Your task to perform on an android device: clear all cookies in the chrome app Image 0: 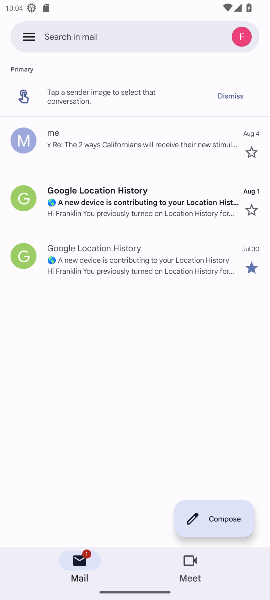
Step 0: press home button
Your task to perform on an android device: clear all cookies in the chrome app Image 1: 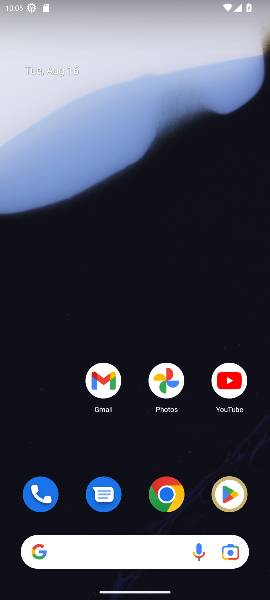
Step 1: click (157, 495)
Your task to perform on an android device: clear all cookies in the chrome app Image 2: 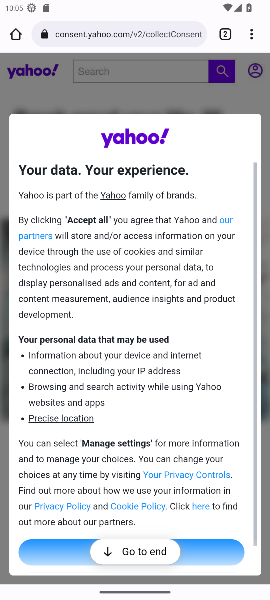
Step 2: click (246, 32)
Your task to perform on an android device: clear all cookies in the chrome app Image 3: 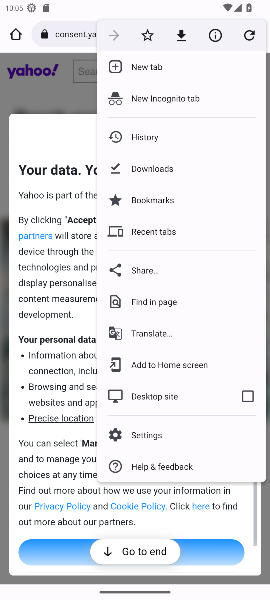
Step 3: click (144, 432)
Your task to perform on an android device: clear all cookies in the chrome app Image 4: 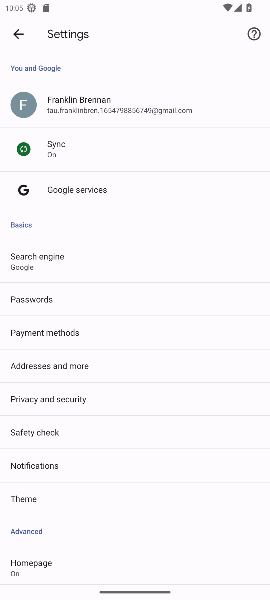
Step 4: drag from (70, 536) to (141, 28)
Your task to perform on an android device: clear all cookies in the chrome app Image 5: 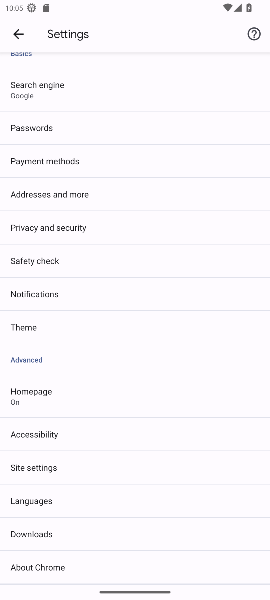
Step 5: click (54, 462)
Your task to perform on an android device: clear all cookies in the chrome app Image 6: 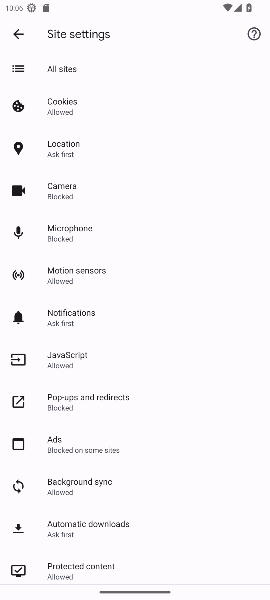
Step 6: click (58, 110)
Your task to perform on an android device: clear all cookies in the chrome app Image 7: 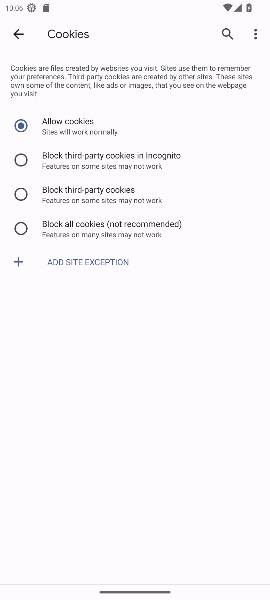
Step 7: click (18, 33)
Your task to perform on an android device: clear all cookies in the chrome app Image 8: 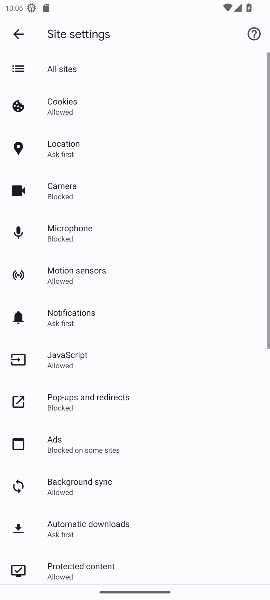
Step 8: click (18, 33)
Your task to perform on an android device: clear all cookies in the chrome app Image 9: 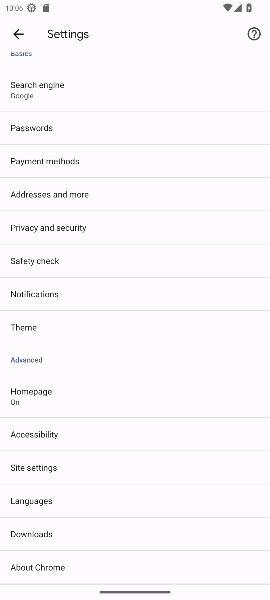
Step 9: drag from (65, 159) to (56, 259)
Your task to perform on an android device: clear all cookies in the chrome app Image 10: 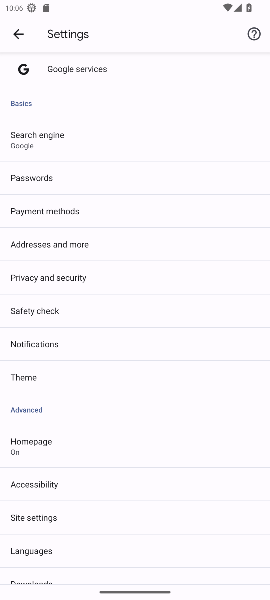
Step 10: click (40, 282)
Your task to perform on an android device: clear all cookies in the chrome app Image 11: 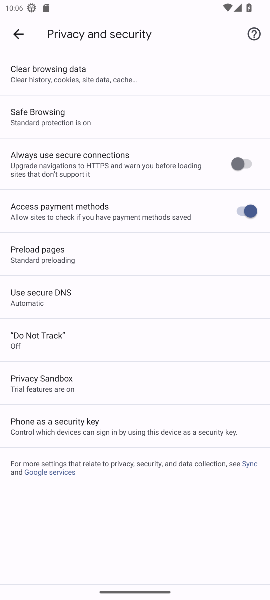
Step 11: click (112, 64)
Your task to perform on an android device: clear all cookies in the chrome app Image 12: 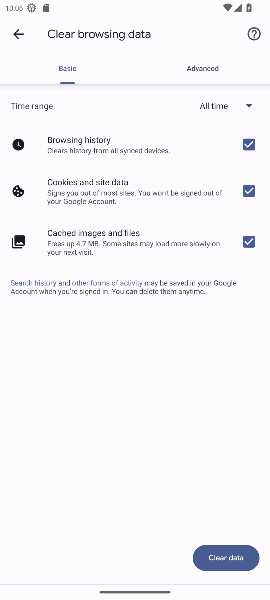
Step 12: click (235, 566)
Your task to perform on an android device: clear all cookies in the chrome app Image 13: 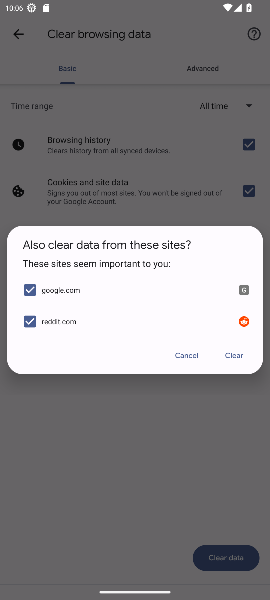
Step 13: click (237, 354)
Your task to perform on an android device: clear all cookies in the chrome app Image 14: 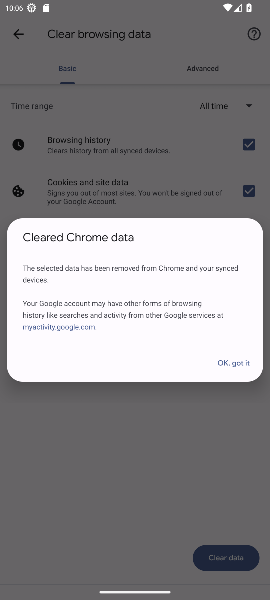
Step 14: click (231, 375)
Your task to perform on an android device: clear all cookies in the chrome app Image 15: 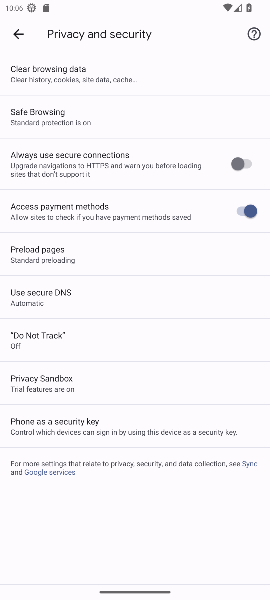
Step 15: task complete